Your task to perform on an android device: Open notification settings Image 0: 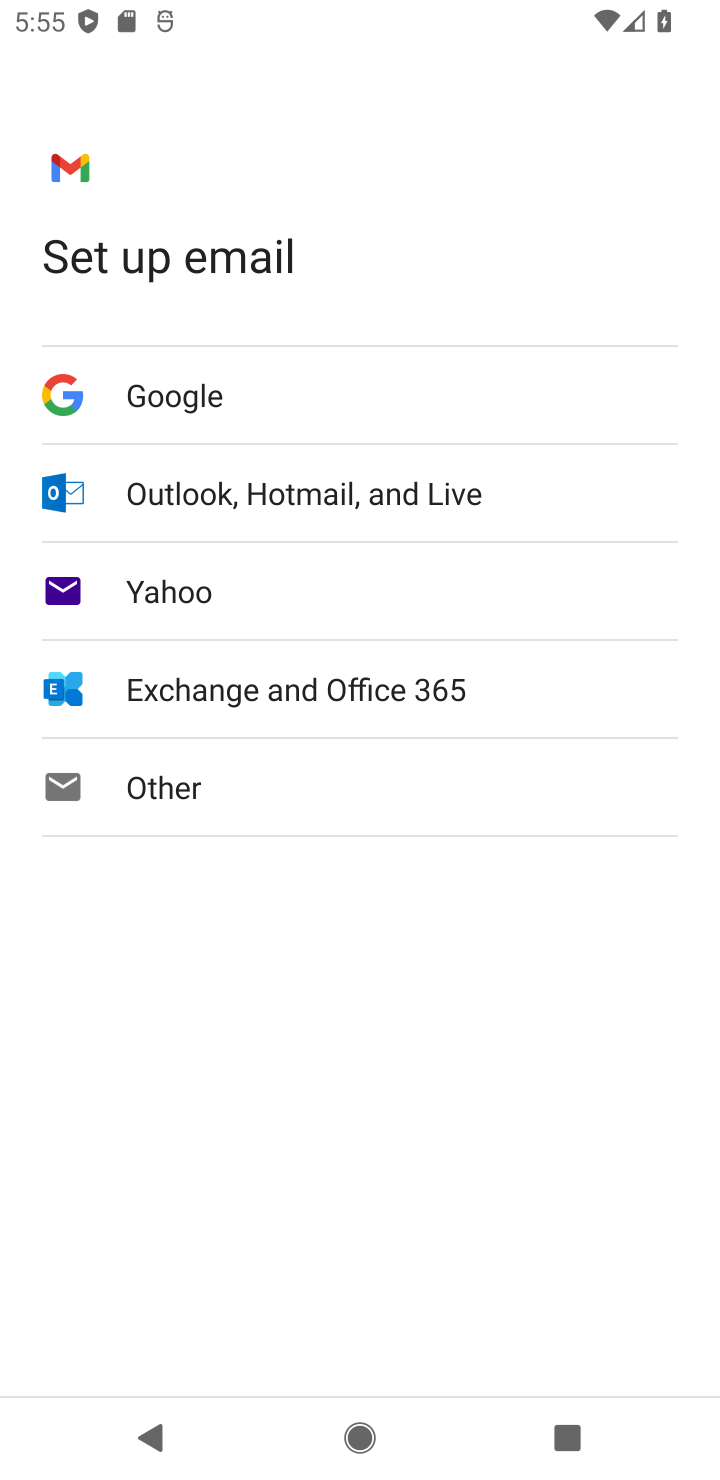
Step 0: press home button
Your task to perform on an android device: Open notification settings Image 1: 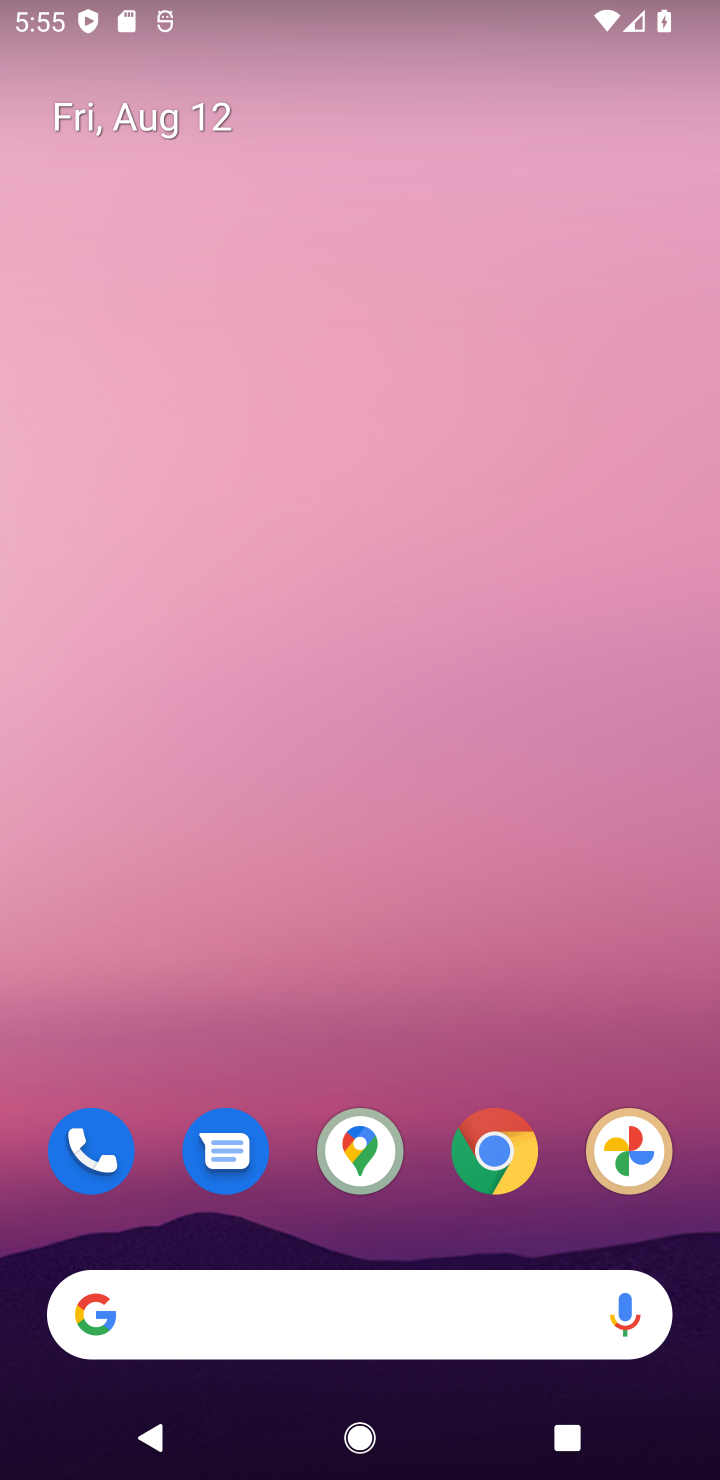
Step 1: drag from (395, 993) to (109, 349)
Your task to perform on an android device: Open notification settings Image 2: 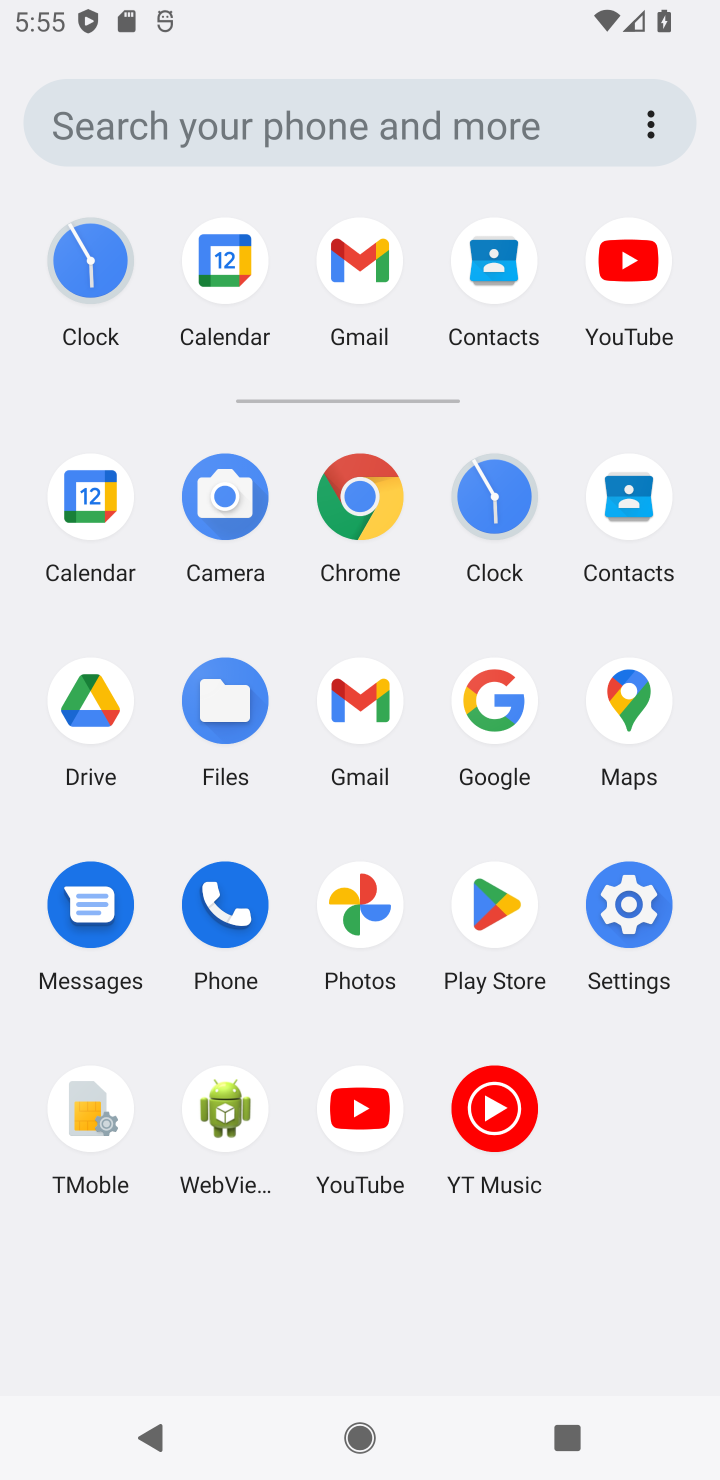
Step 2: click (633, 896)
Your task to perform on an android device: Open notification settings Image 3: 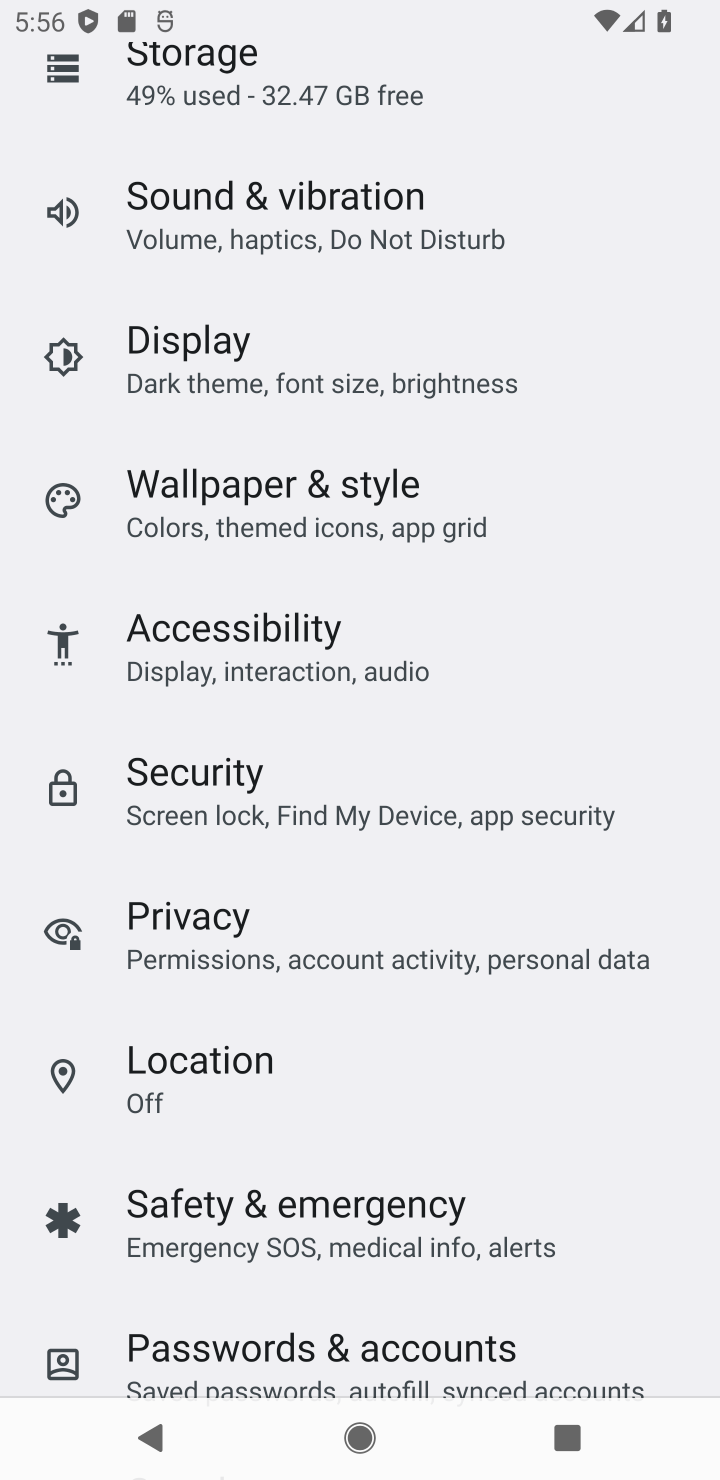
Step 3: drag from (652, 313) to (607, 1119)
Your task to perform on an android device: Open notification settings Image 4: 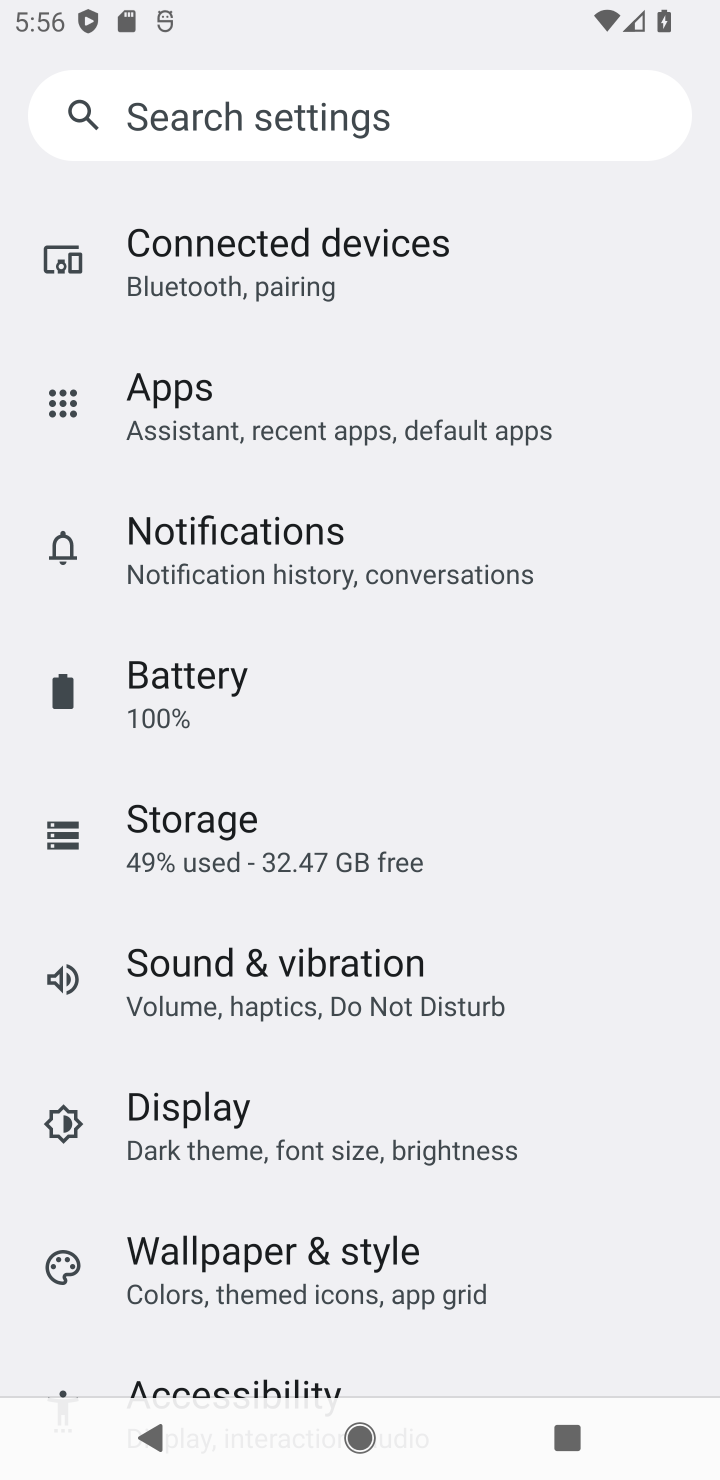
Step 4: click (341, 569)
Your task to perform on an android device: Open notification settings Image 5: 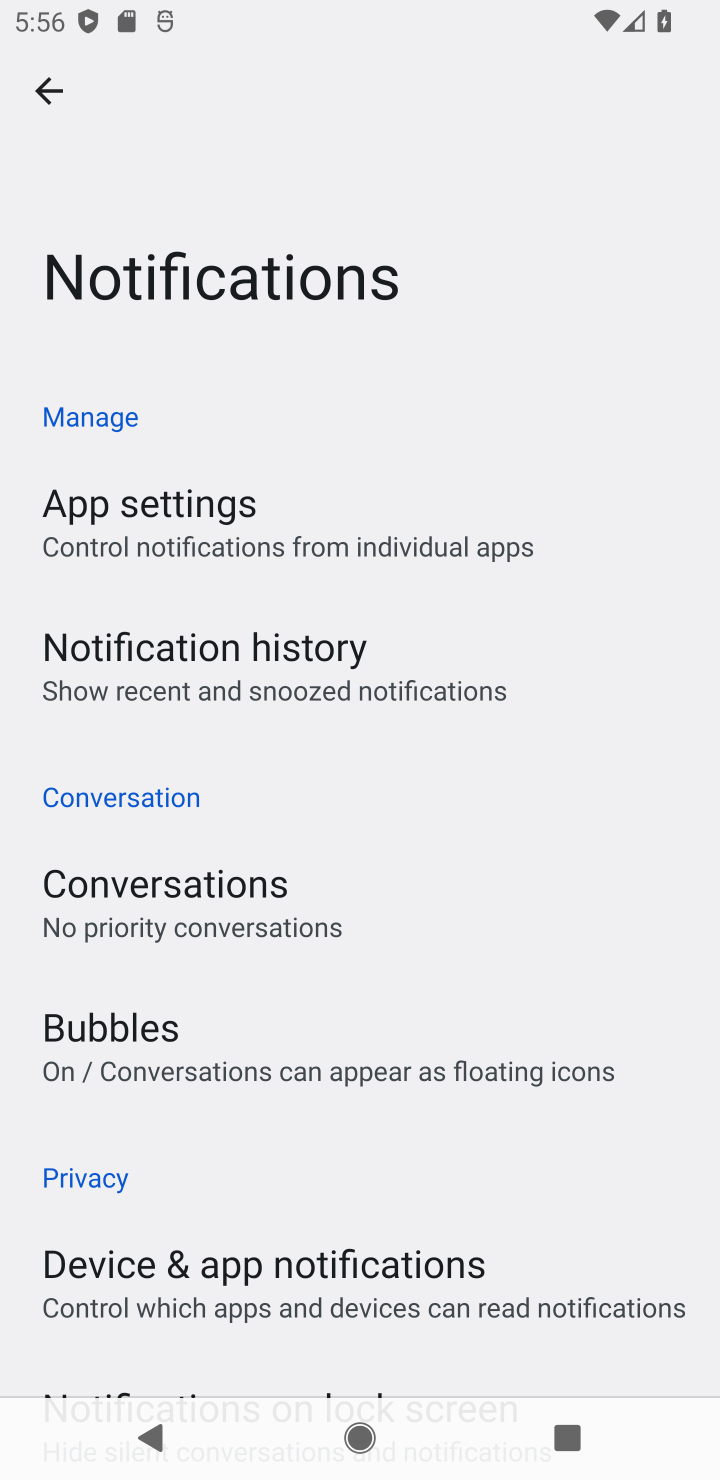
Step 5: task complete